Your task to perform on an android device: Clear all items from cart on amazon.com. Search for "corsair k70" on amazon.com, select the first entry, add it to the cart, then select checkout. Image 0: 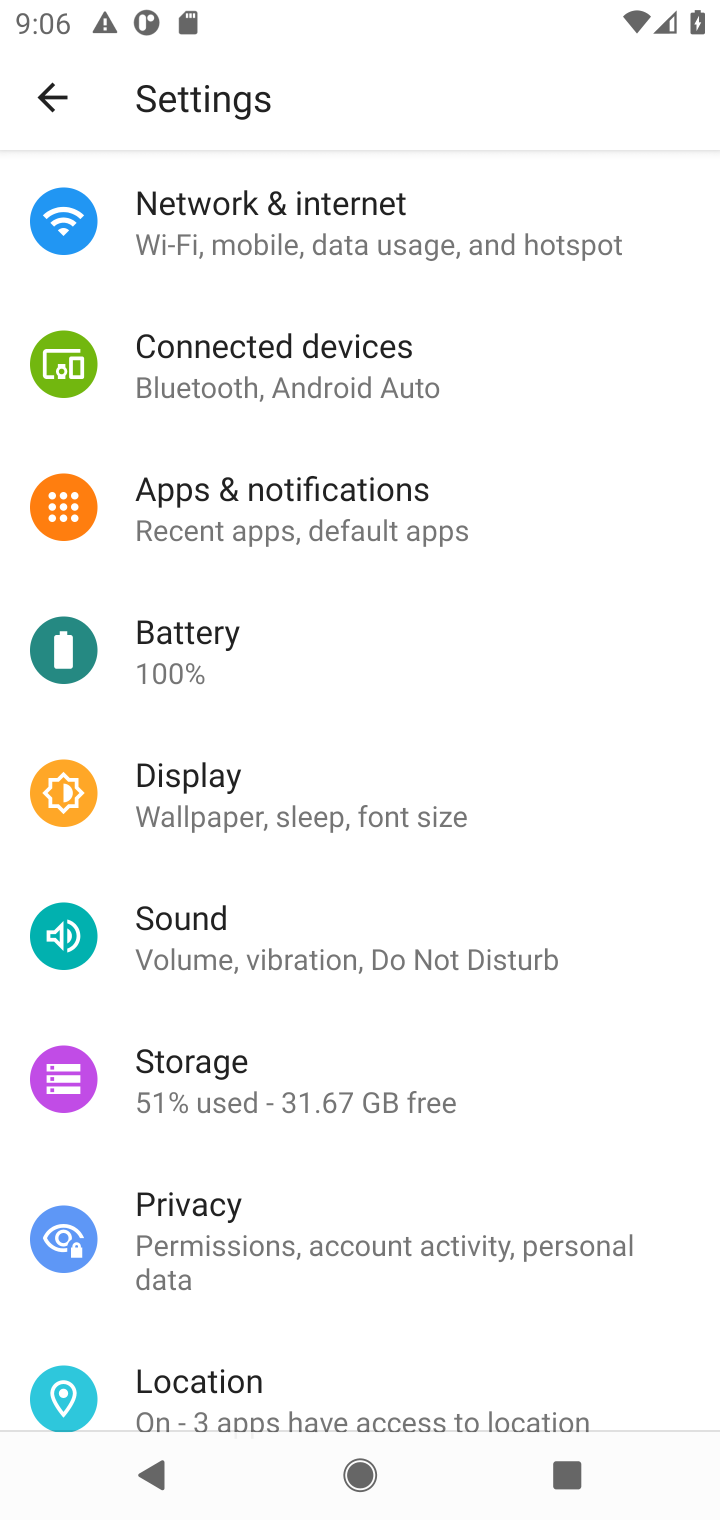
Step 0: press home button
Your task to perform on an android device: Clear all items from cart on amazon.com. Search for "corsair k70" on amazon.com, select the first entry, add it to the cart, then select checkout. Image 1: 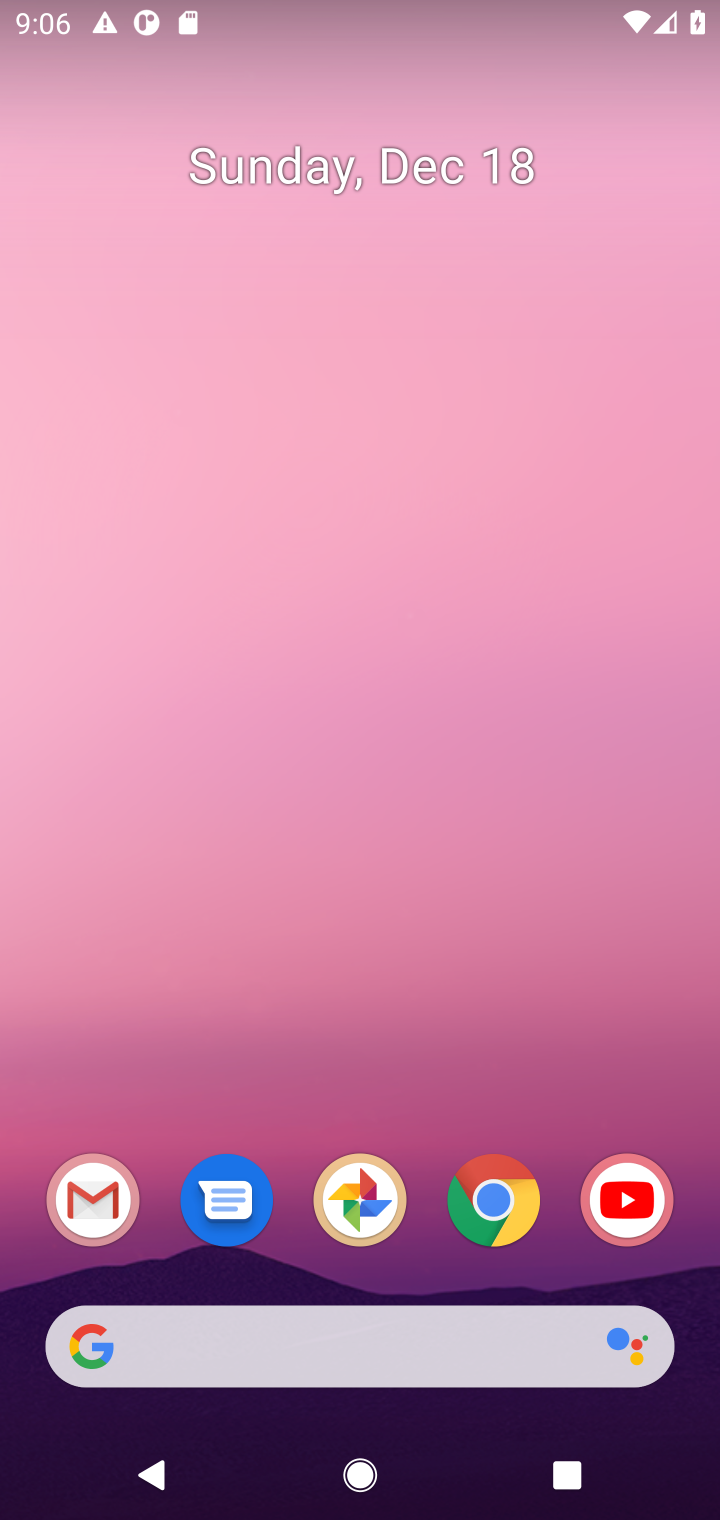
Step 1: click (506, 1197)
Your task to perform on an android device: Clear all items from cart on amazon.com. Search for "corsair k70" on amazon.com, select the first entry, add it to the cart, then select checkout. Image 2: 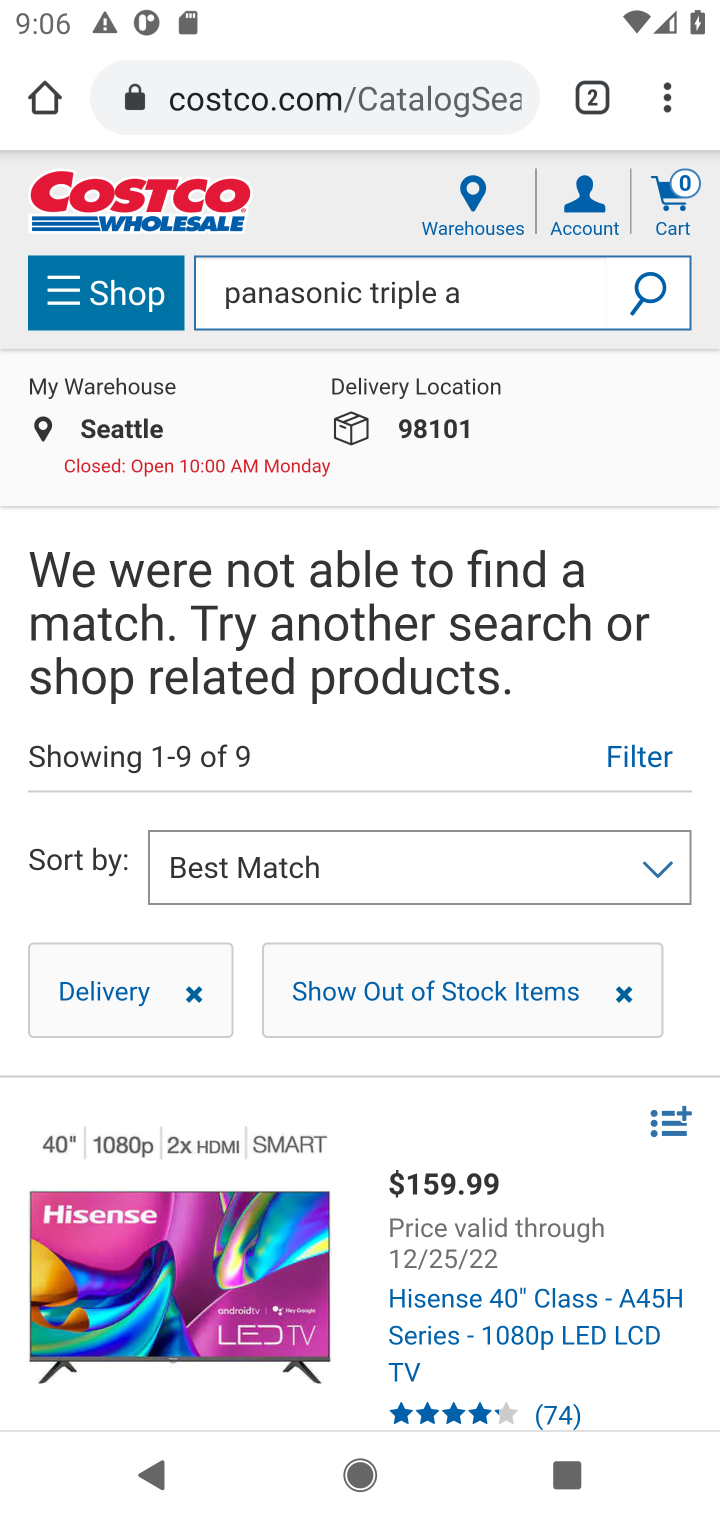
Step 2: click (280, 98)
Your task to perform on an android device: Clear all items from cart on amazon.com. Search for "corsair k70" on amazon.com, select the first entry, add it to the cart, then select checkout. Image 3: 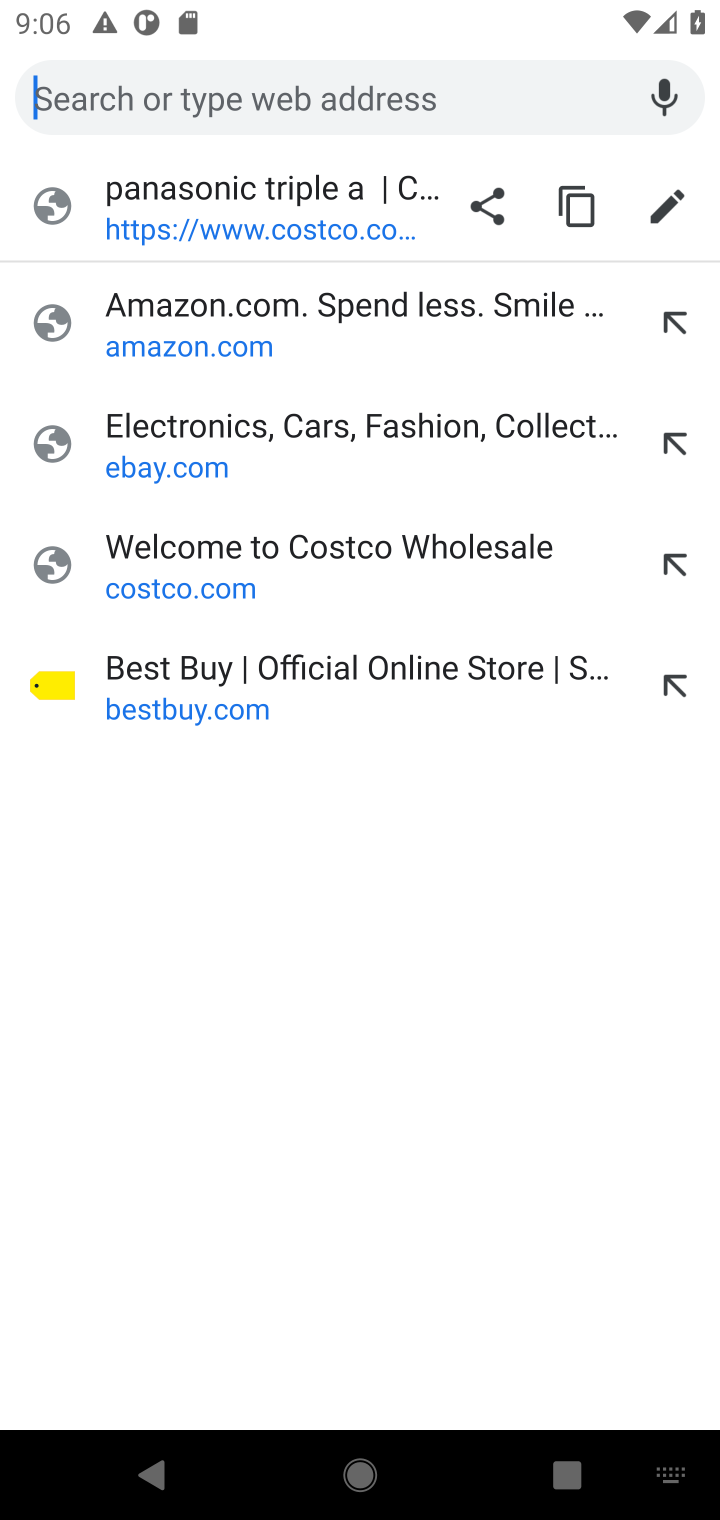
Step 3: click (152, 314)
Your task to perform on an android device: Clear all items from cart on amazon.com. Search for "corsair k70" on amazon.com, select the first entry, add it to the cart, then select checkout. Image 4: 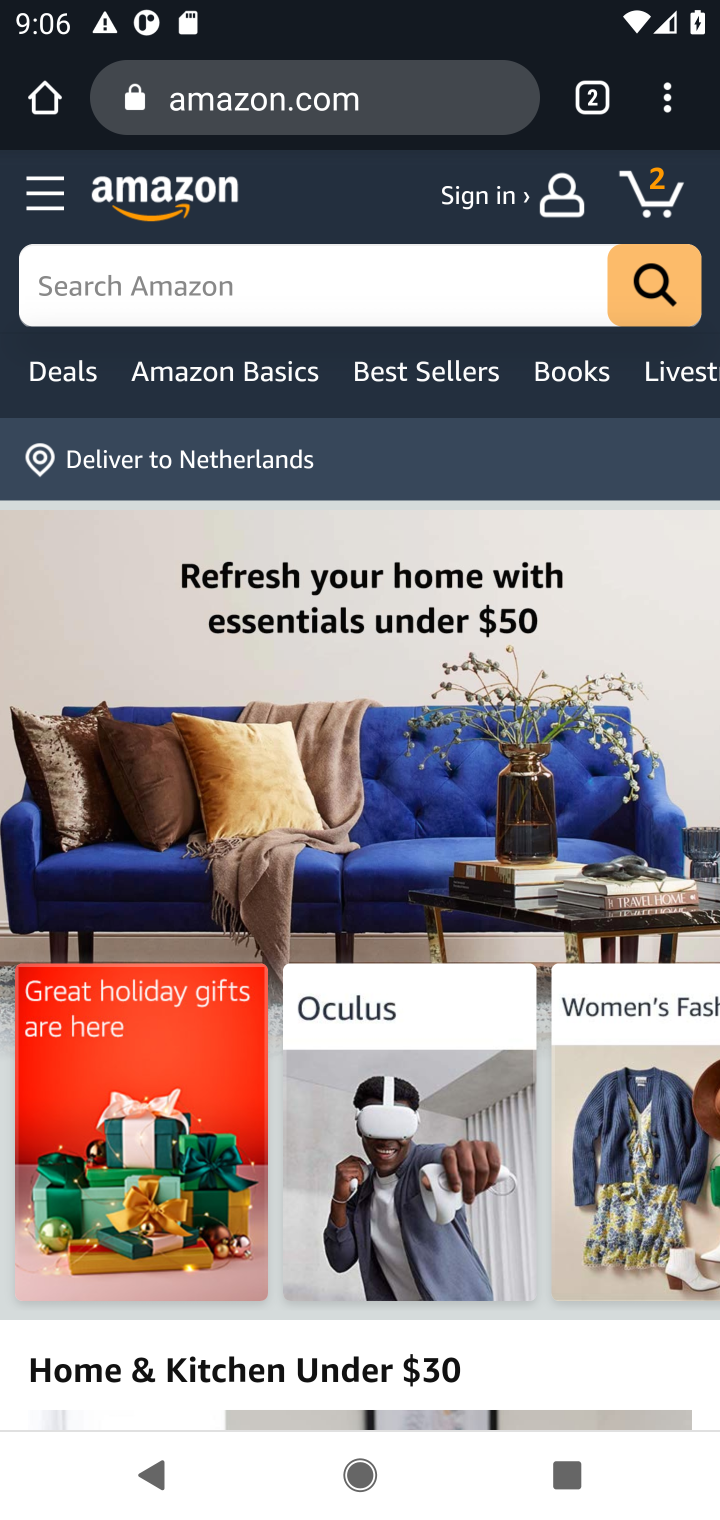
Step 4: click (652, 196)
Your task to perform on an android device: Clear all items from cart on amazon.com. Search for "corsair k70" on amazon.com, select the first entry, add it to the cart, then select checkout. Image 5: 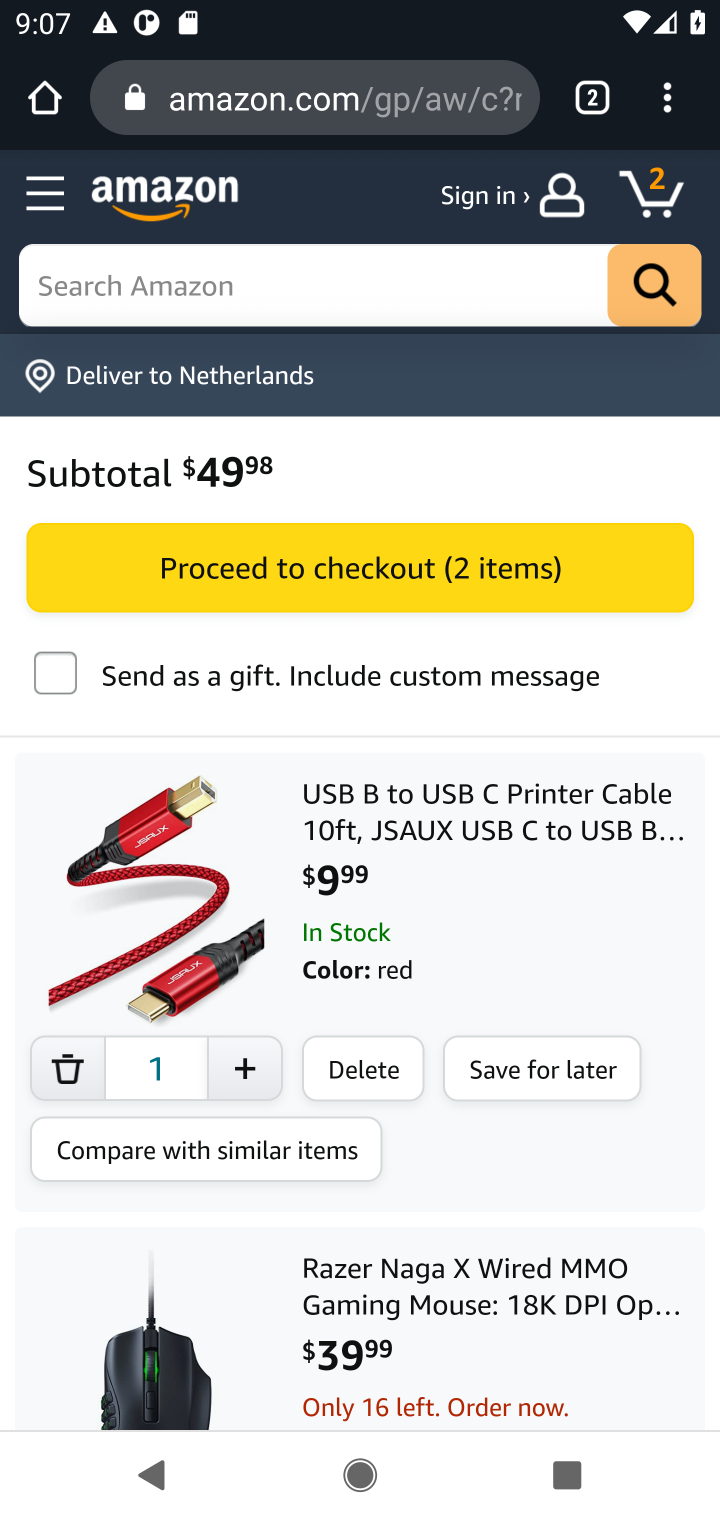
Step 5: click (357, 1068)
Your task to perform on an android device: Clear all items from cart on amazon.com. Search for "corsair k70" on amazon.com, select the first entry, add it to the cart, then select checkout. Image 6: 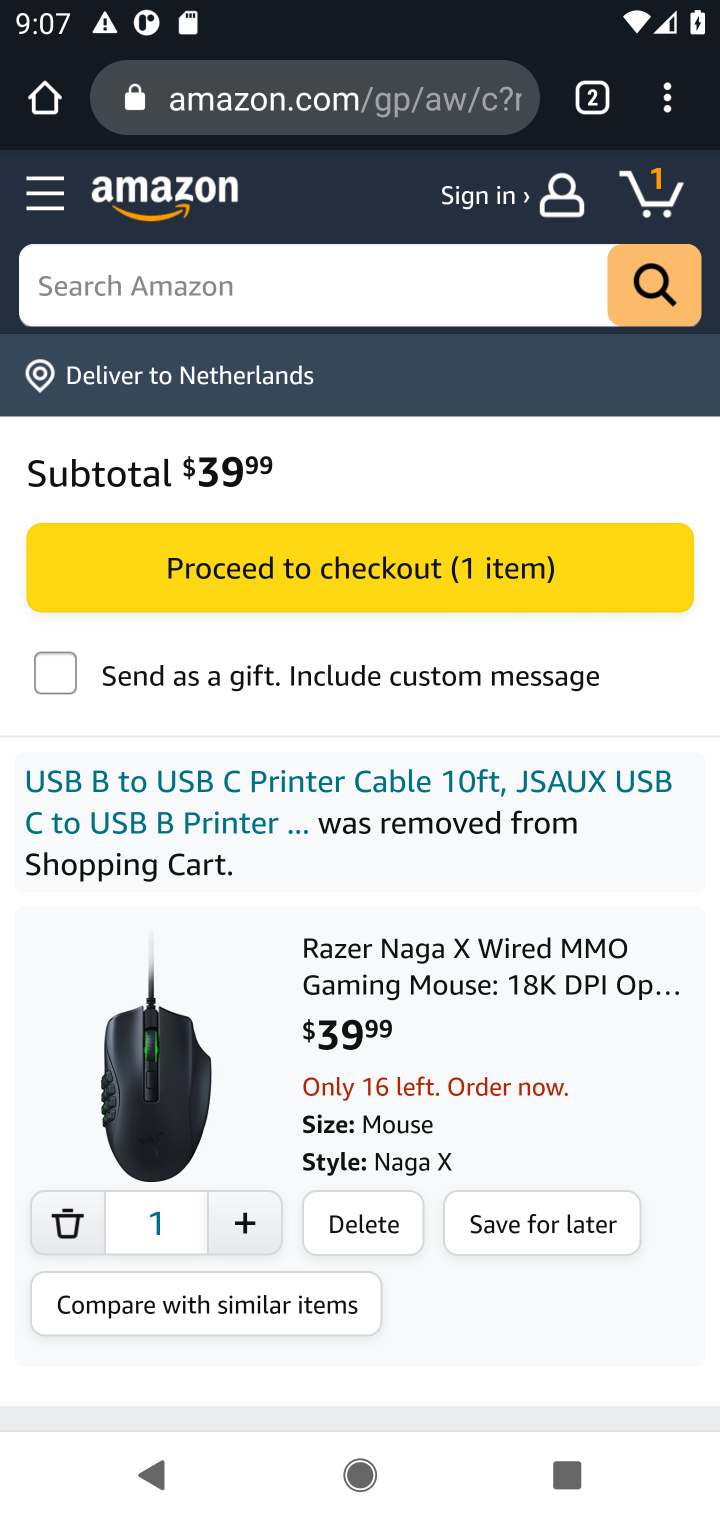
Step 6: click (348, 1218)
Your task to perform on an android device: Clear all items from cart on amazon.com. Search for "corsair k70" on amazon.com, select the first entry, add it to the cart, then select checkout. Image 7: 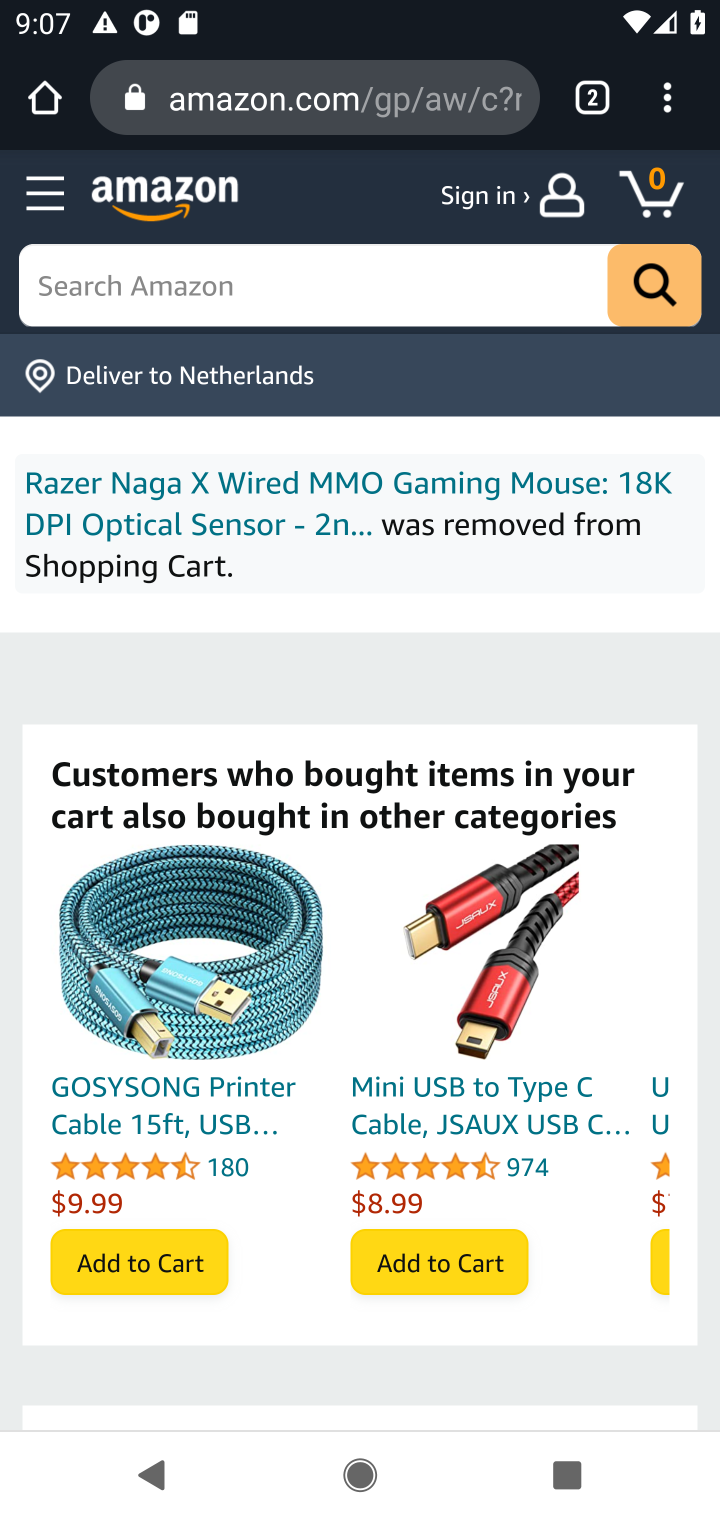
Step 7: click (380, 285)
Your task to perform on an android device: Clear all items from cart on amazon.com. Search for "corsair k70" on amazon.com, select the first entry, add it to the cart, then select checkout. Image 8: 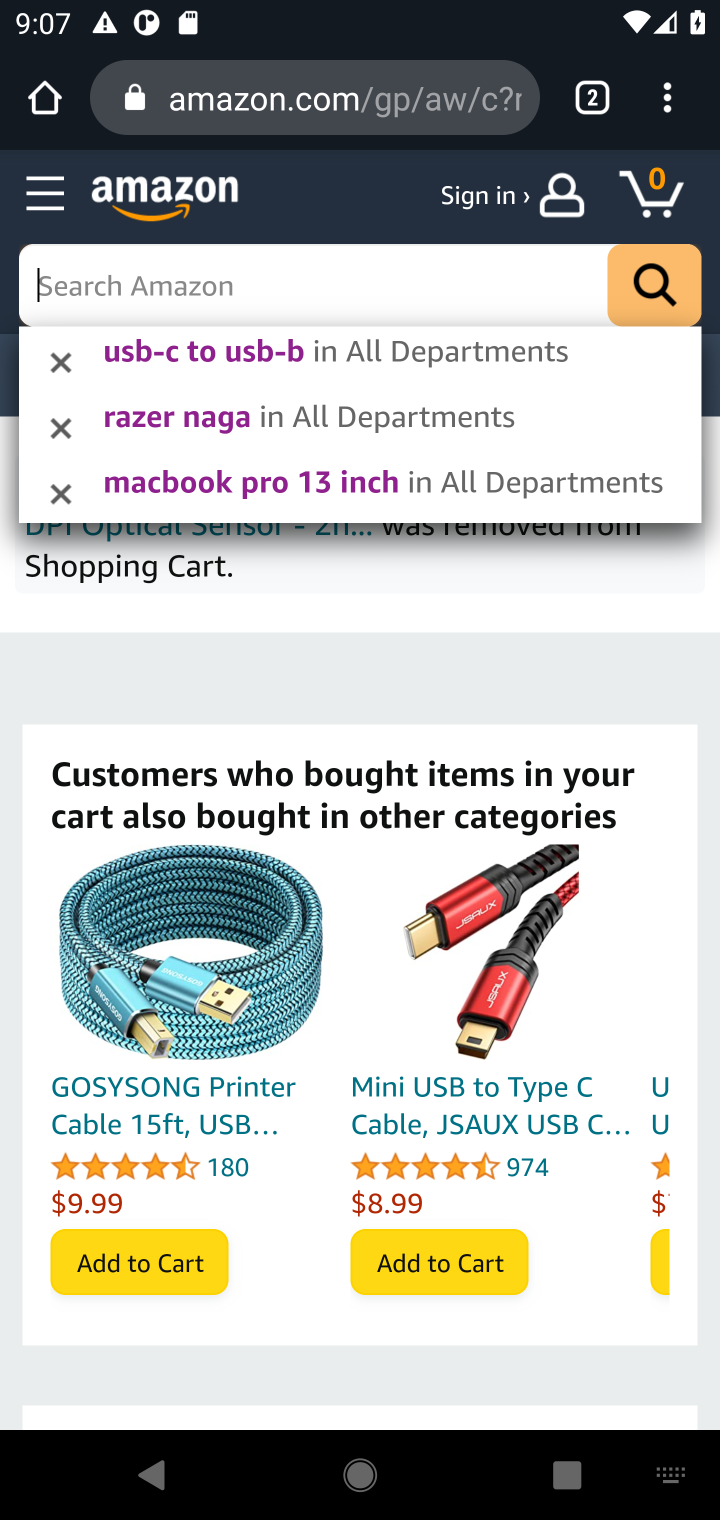
Step 8: type "corsair k70"
Your task to perform on an android device: Clear all items from cart on amazon.com. Search for "corsair k70" on amazon.com, select the first entry, add it to the cart, then select checkout. Image 9: 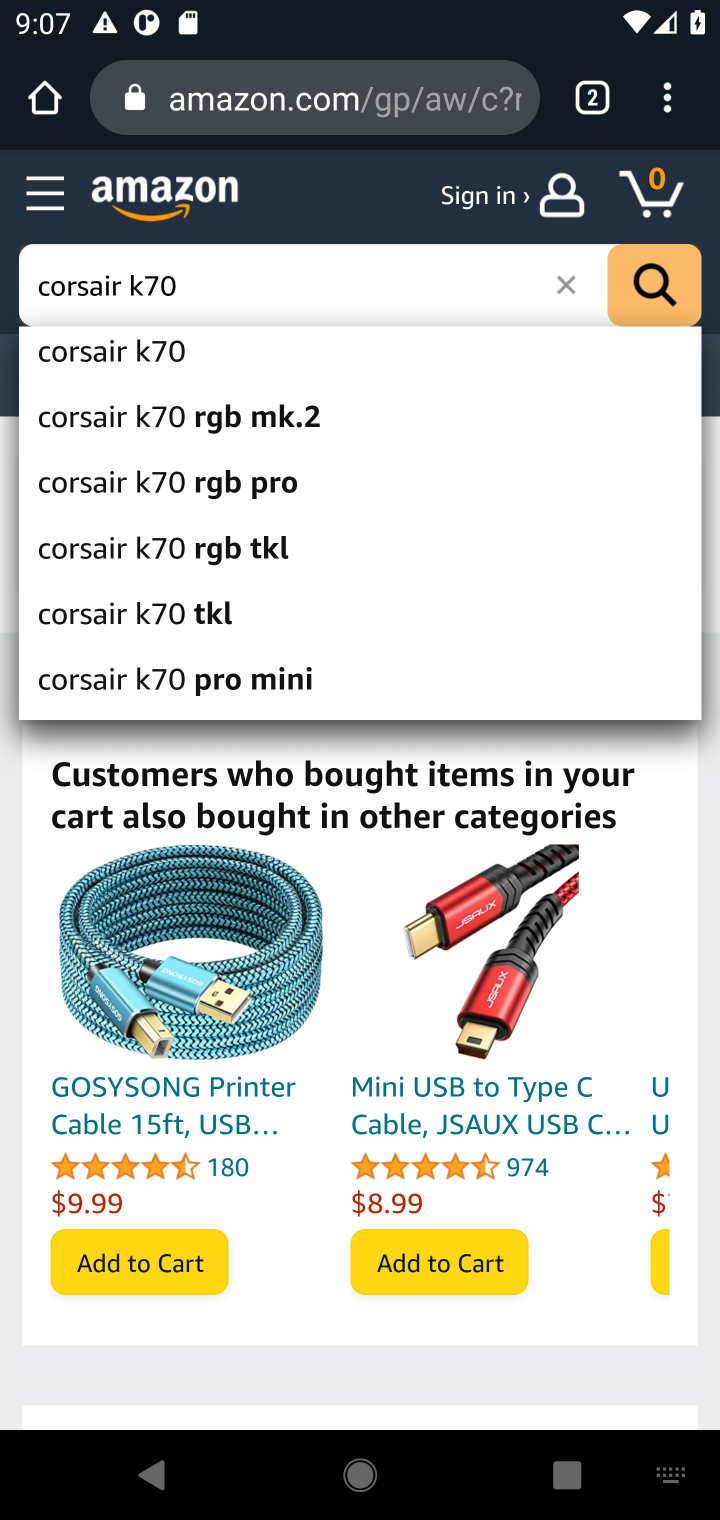
Step 9: click (85, 364)
Your task to perform on an android device: Clear all items from cart on amazon.com. Search for "corsair k70" on amazon.com, select the first entry, add it to the cart, then select checkout. Image 10: 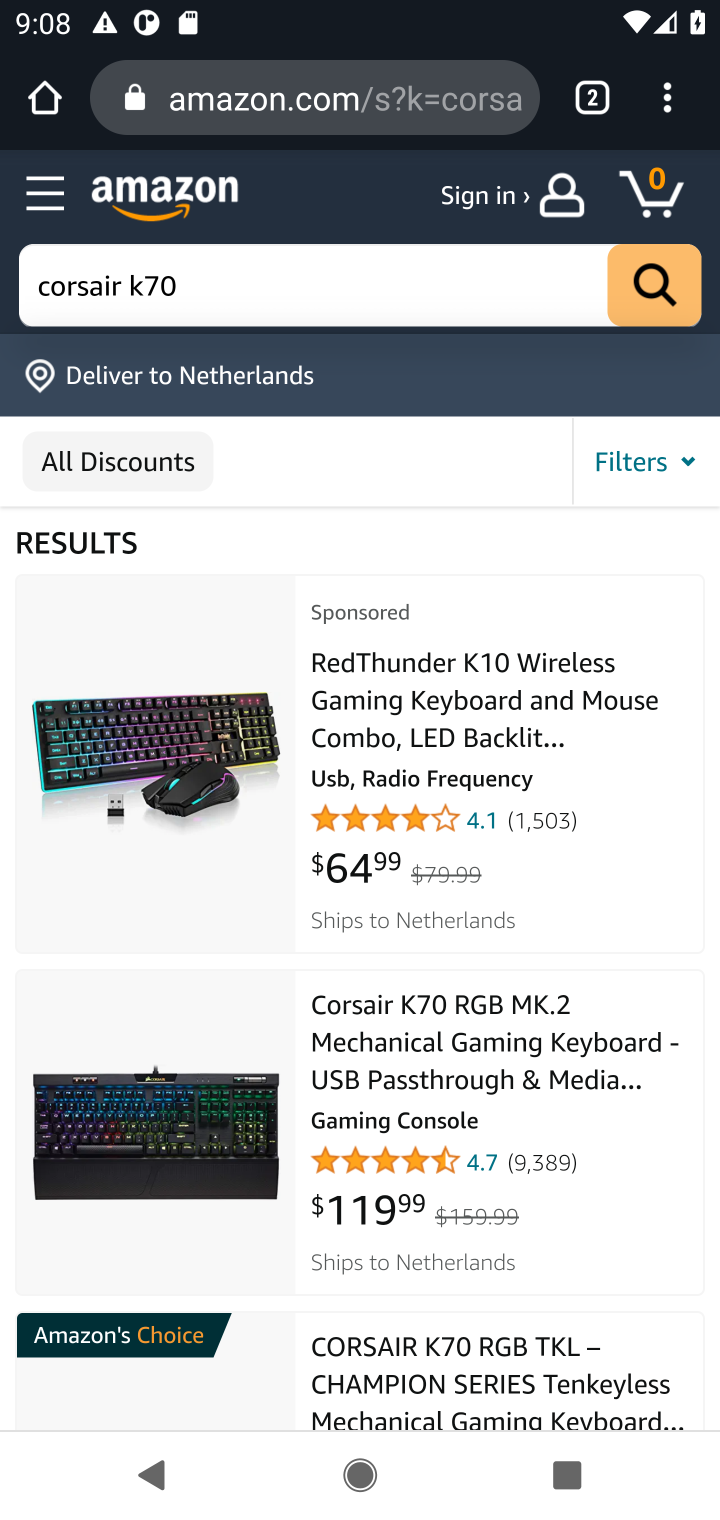
Step 10: task complete